Your task to perform on an android device: turn on the 24-hour format for clock Image 0: 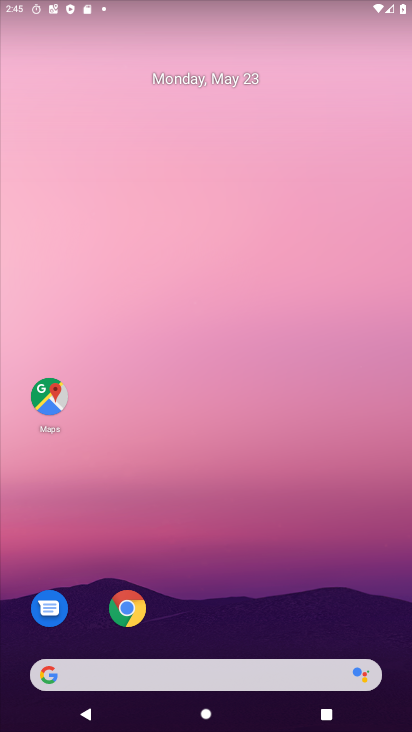
Step 0: drag from (216, 634) to (295, 103)
Your task to perform on an android device: turn on the 24-hour format for clock Image 1: 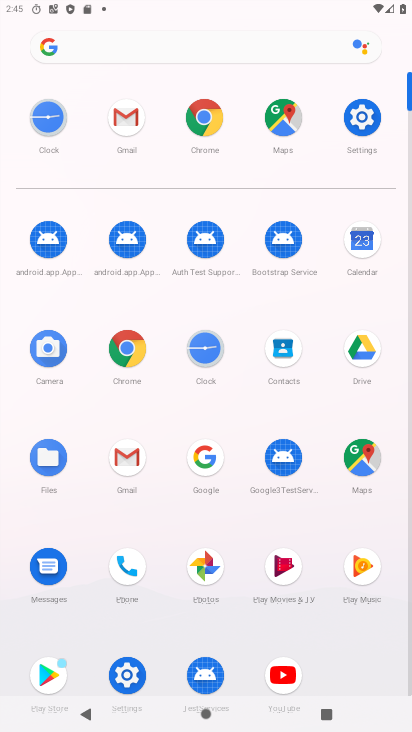
Step 1: click (359, 125)
Your task to perform on an android device: turn on the 24-hour format for clock Image 2: 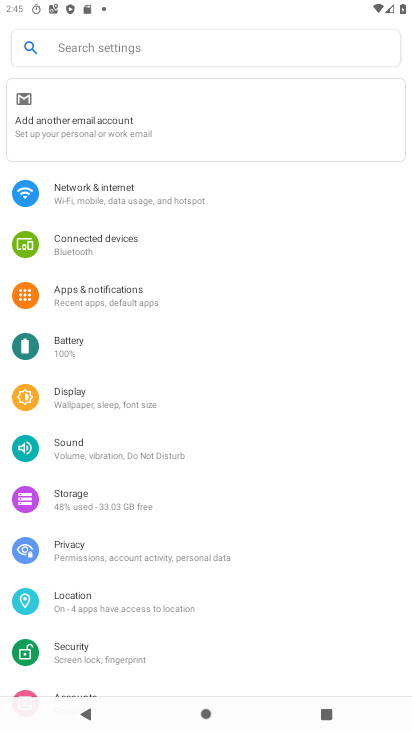
Step 2: drag from (97, 656) to (181, 227)
Your task to perform on an android device: turn on the 24-hour format for clock Image 3: 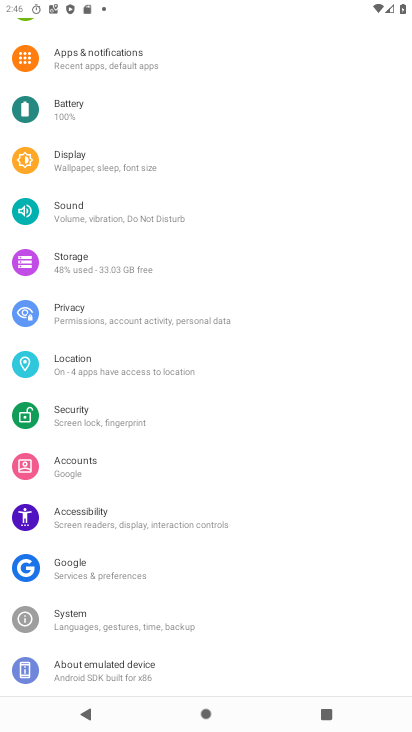
Step 3: click (90, 622)
Your task to perform on an android device: turn on the 24-hour format for clock Image 4: 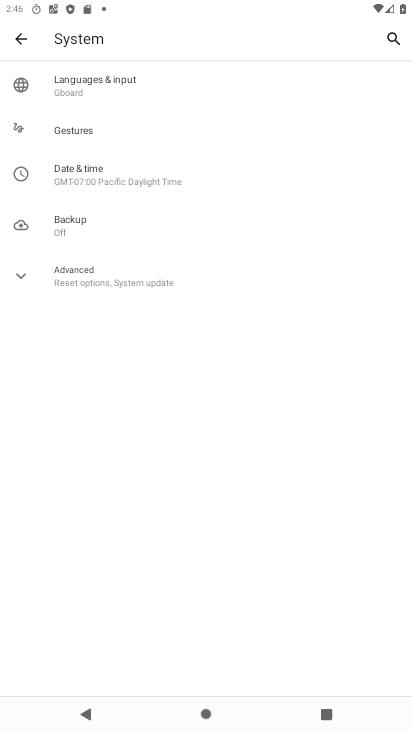
Step 4: click (119, 185)
Your task to perform on an android device: turn on the 24-hour format for clock Image 5: 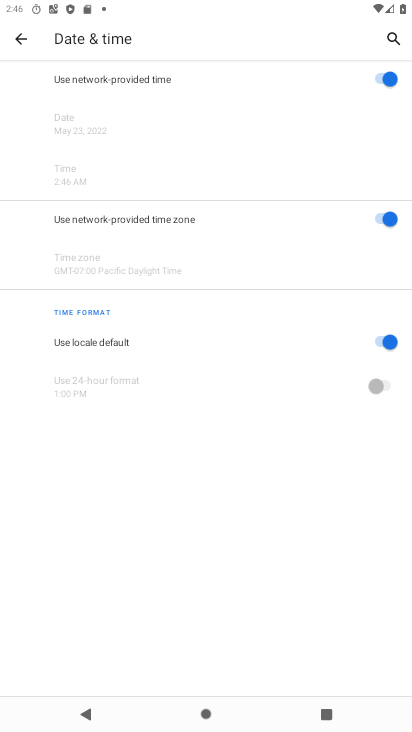
Step 5: click (369, 340)
Your task to perform on an android device: turn on the 24-hour format for clock Image 6: 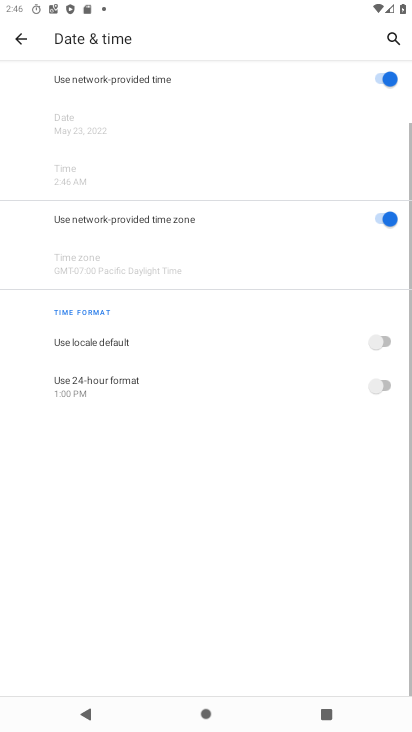
Step 6: click (397, 383)
Your task to perform on an android device: turn on the 24-hour format for clock Image 7: 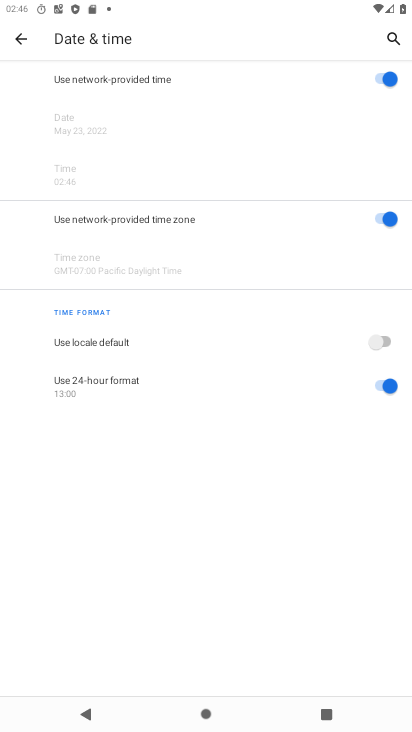
Step 7: task complete